Your task to perform on an android device: Go to notification settings Image 0: 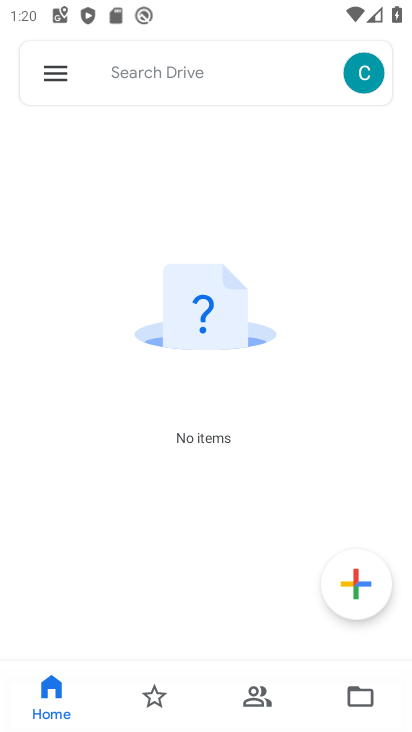
Step 0: press home button
Your task to perform on an android device: Go to notification settings Image 1: 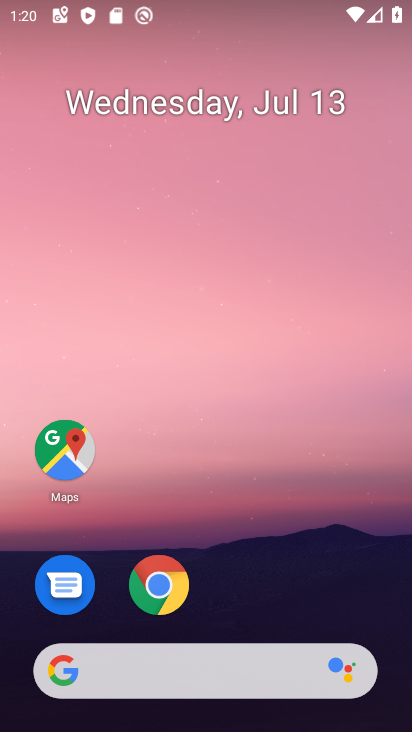
Step 1: drag from (188, 663) to (395, 84)
Your task to perform on an android device: Go to notification settings Image 2: 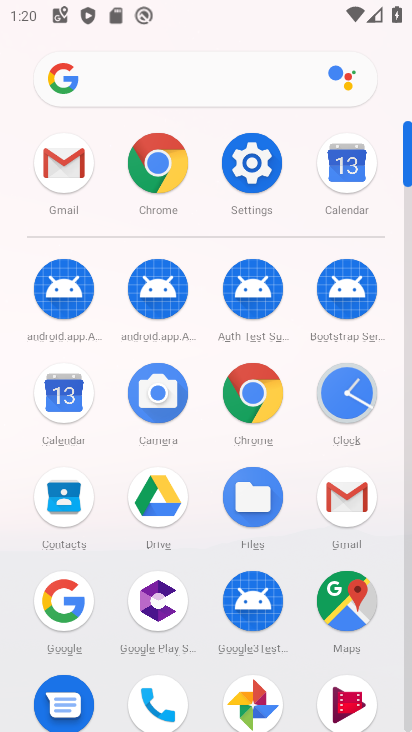
Step 2: click (251, 176)
Your task to perform on an android device: Go to notification settings Image 3: 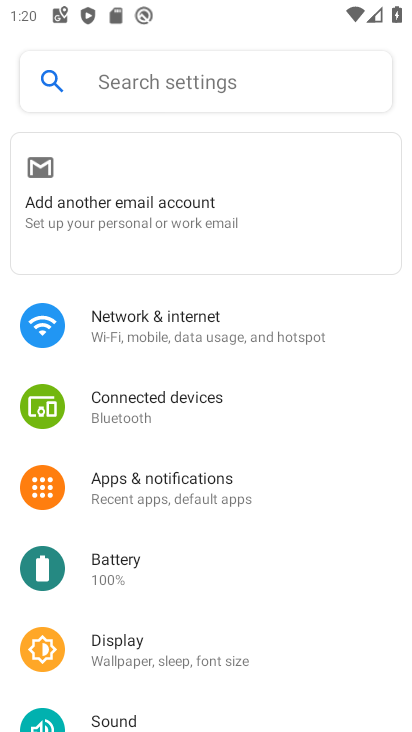
Step 3: click (150, 481)
Your task to perform on an android device: Go to notification settings Image 4: 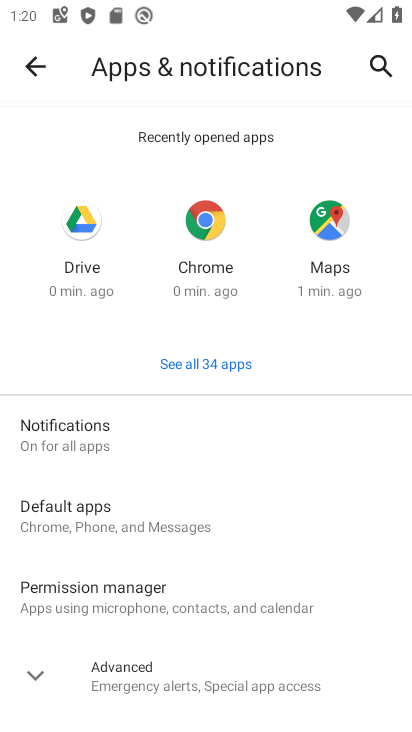
Step 4: click (68, 435)
Your task to perform on an android device: Go to notification settings Image 5: 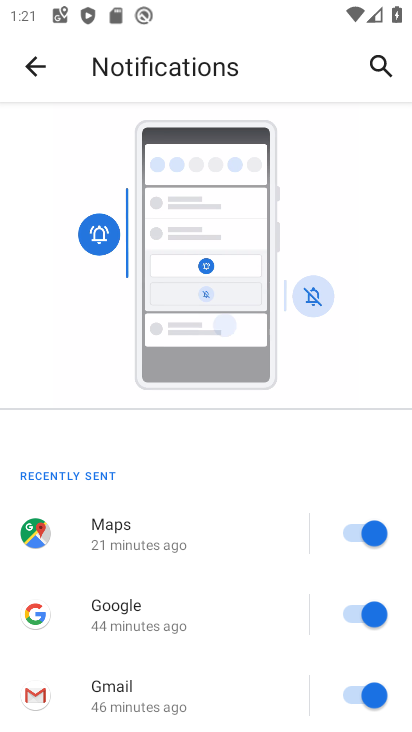
Step 5: task complete